Your task to perform on an android device: Check the news Image 0: 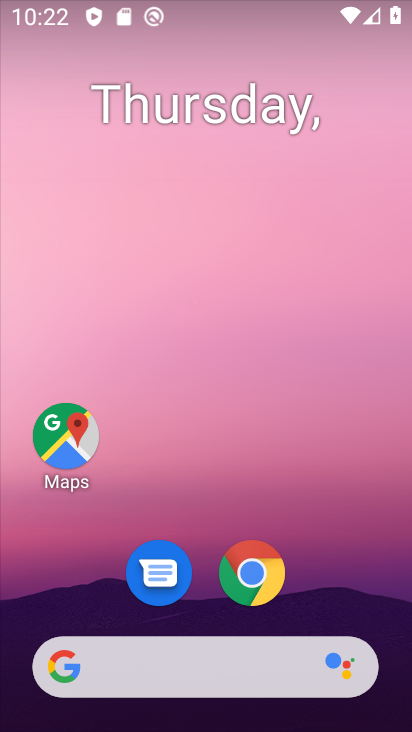
Step 0: click (260, 570)
Your task to perform on an android device: Check the news Image 1: 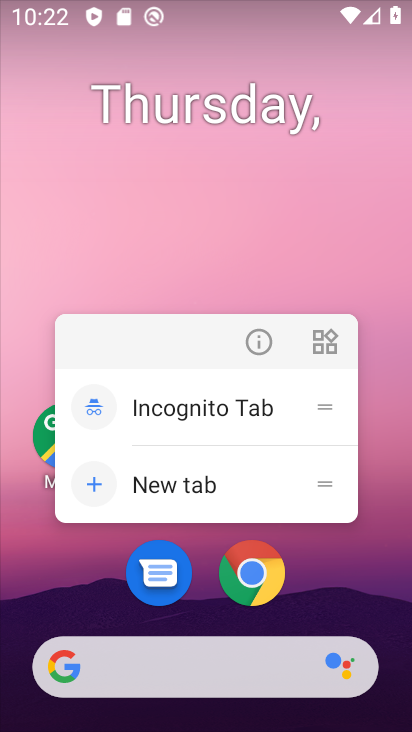
Step 1: click (259, 576)
Your task to perform on an android device: Check the news Image 2: 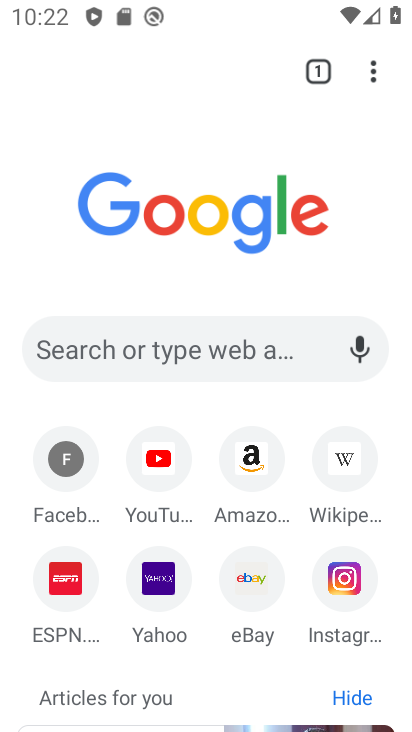
Step 2: click (168, 343)
Your task to perform on an android device: Check the news Image 3: 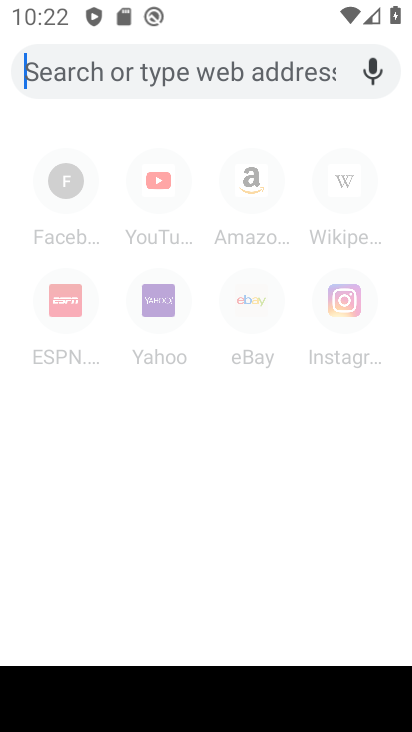
Step 3: type "news"
Your task to perform on an android device: Check the news Image 4: 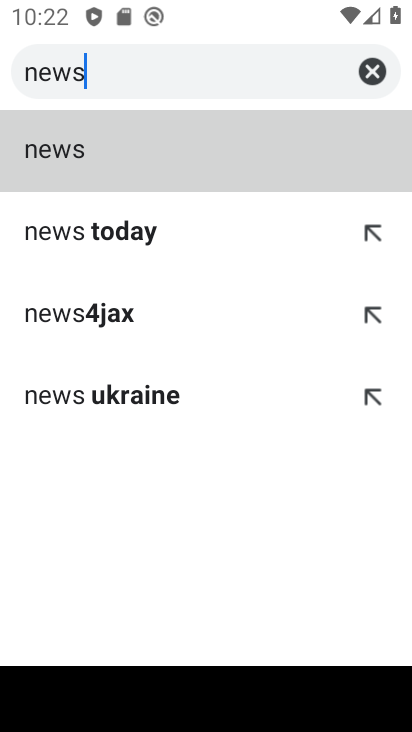
Step 4: click (83, 152)
Your task to perform on an android device: Check the news Image 5: 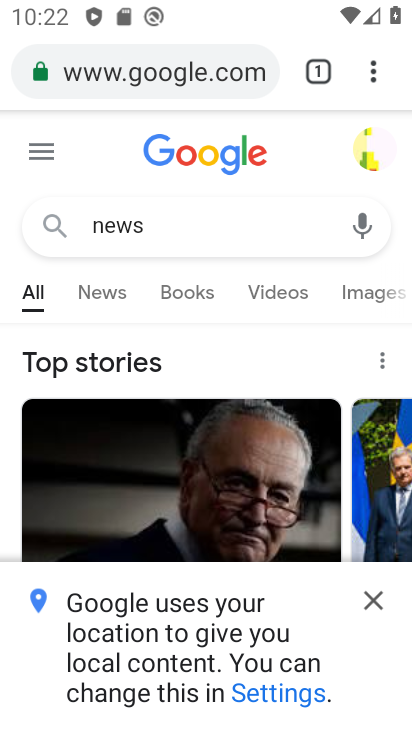
Step 5: click (109, 298)
Your task to perform on an android device: Check the news Image 6: 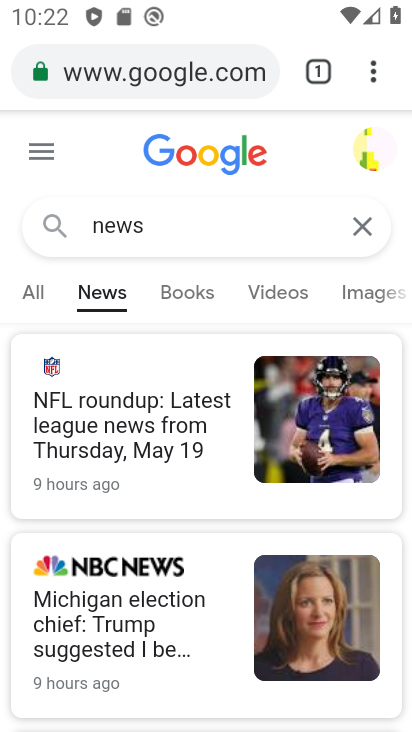
Step 6: task complete